Your task to perform on an android device: What's the weather going to be tomorrow? Image 0: 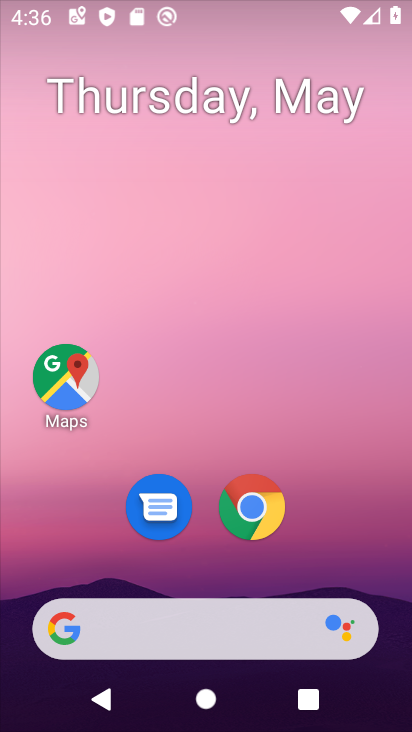
Step 0: click (224, 538)
Your task to perform on an android device: What's the weather going to be tomorrow? Image 1: 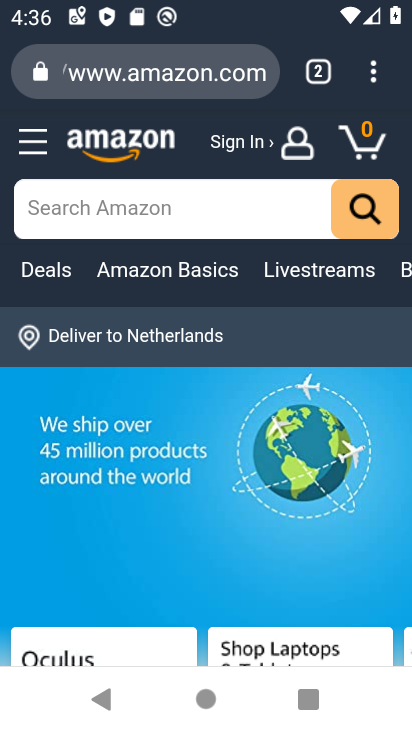
Step 1: press home button
Your task to perform on an android device: What's the weather going to be tomorrow? Image 2: 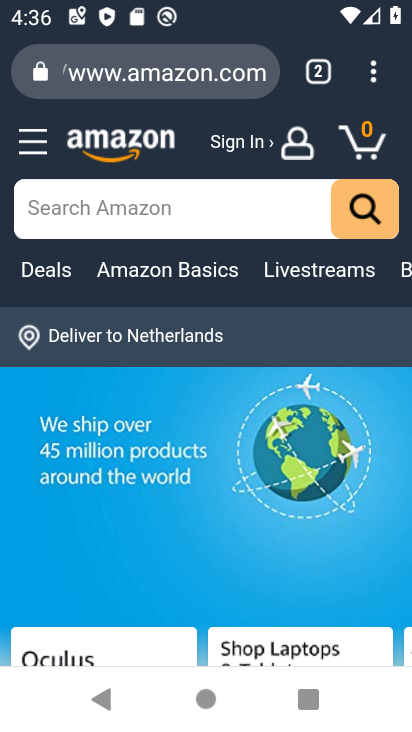
Step 2: press home button
Your task to perform on an android device: What's the weather going to be tomorrow? Image 3: 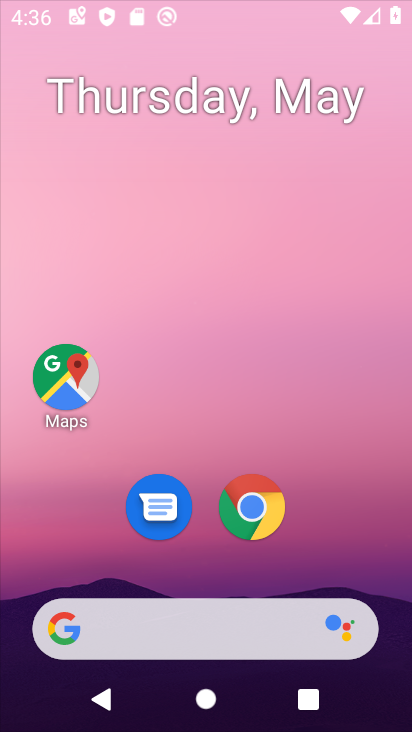
Step 3: press home button
Your task to perform on an android device: What's the weather going to be tomorrow? Image 4: 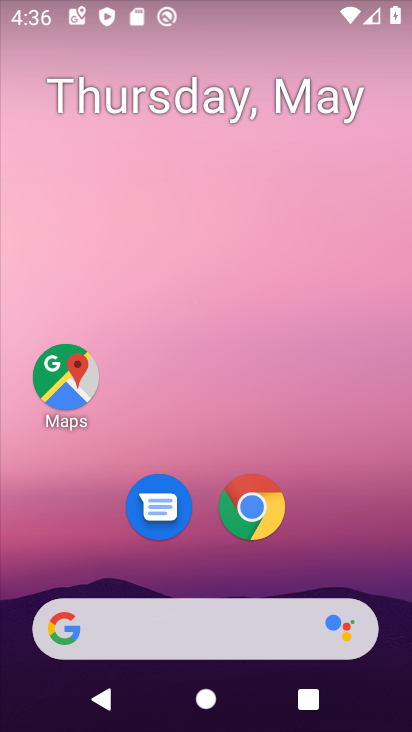
Step 4: drag from (46, 222) to (367, 397)
Your task to perform on an android device: What's the weather going to be tomorrow? Image 5: 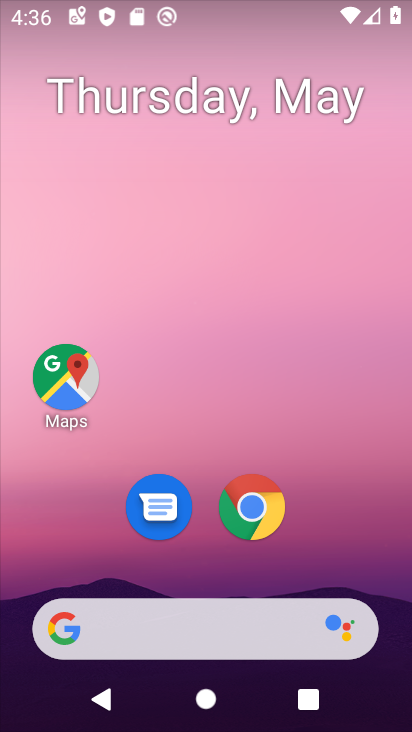
Step 5: drag from (19, 173) to (397, 358)
Your task to perform on an android device: What's the weather going to be tomorrow? Image 6: 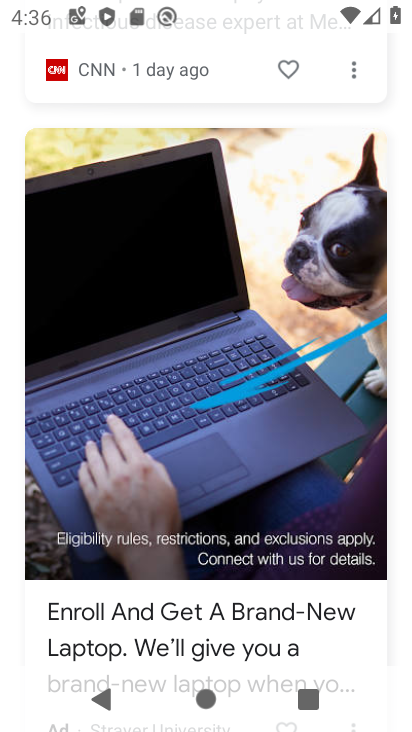
Step 6: drag from (184, 113) to (253, 548)
Your task to perform on an android device: What's the weather going to be tomorrow? Image 7: 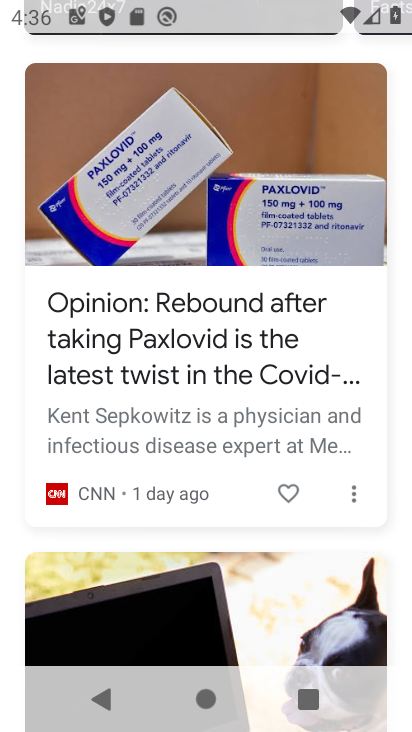
Step 7: drag from (220, 352) to (261, 580)
Your task to perform on an android device: What's the weather going to be tomorrow? Image 8: 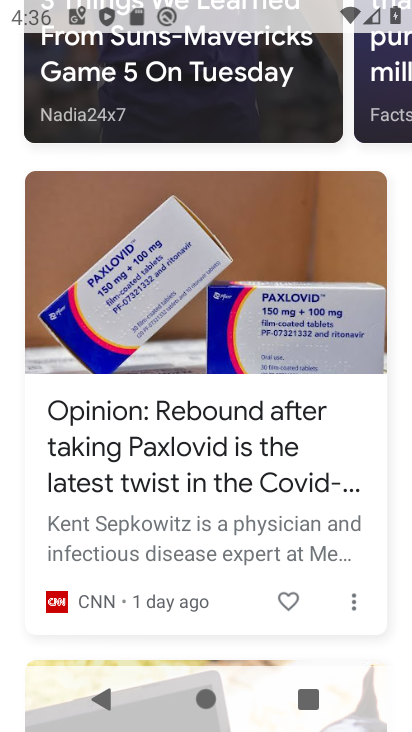
Step 8: click (266, 659)
Your task to perform on an android device: What's the weather going to be tomorrow? Image 9: 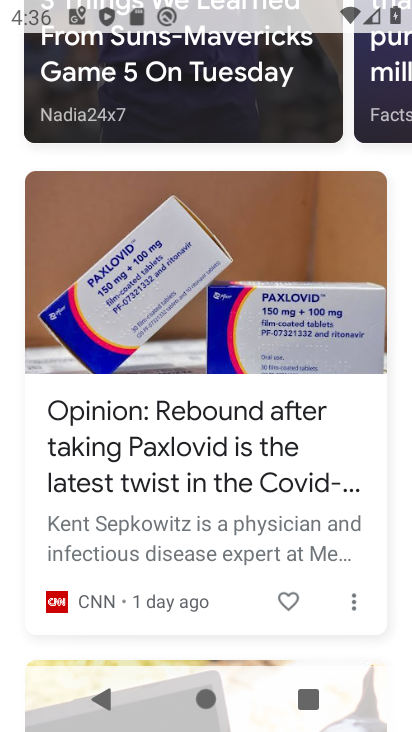
Step 9: drag from (276, 648) to (217, 487)
Your task to perform on an android device: What's the weather going to be tomorrow? Image 10: 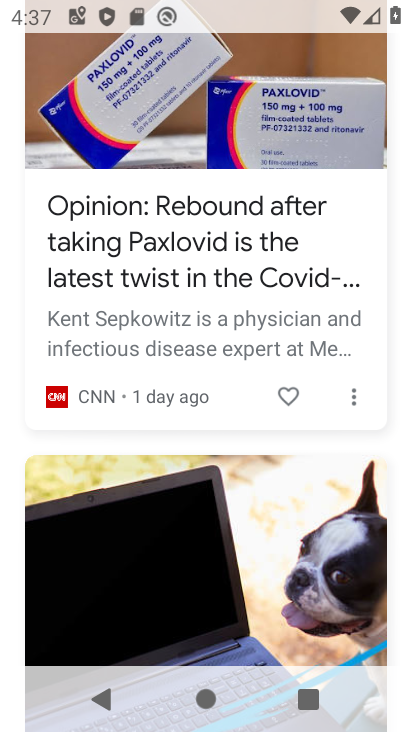
Step 10: drag from (167, 84) to (234, 567)
Your task to perform on an android device: What's the weather going to be tomorrow? Image 11: 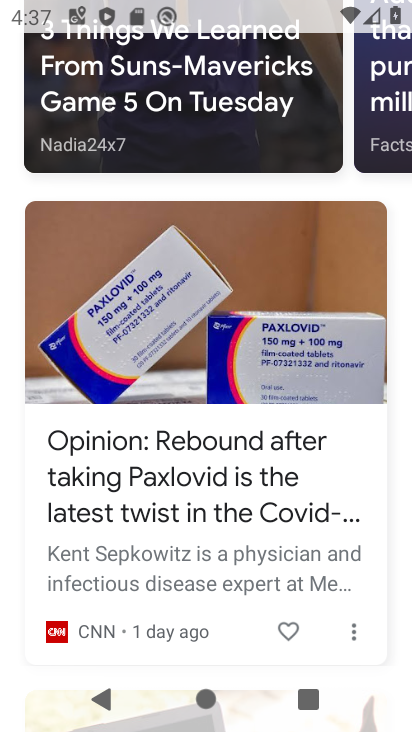
Step 11: drag from (217, 504) to (242, 610)
Your task to perform on an android device: What's the weather going to be tomorrow? Image 12: 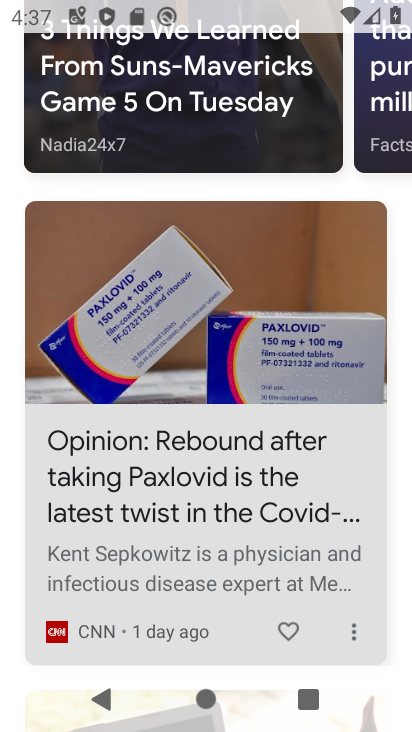
Step 12: click (191, 597)
Your task to perform on an android device: What's the weather going to be tomorrow? Image 13: 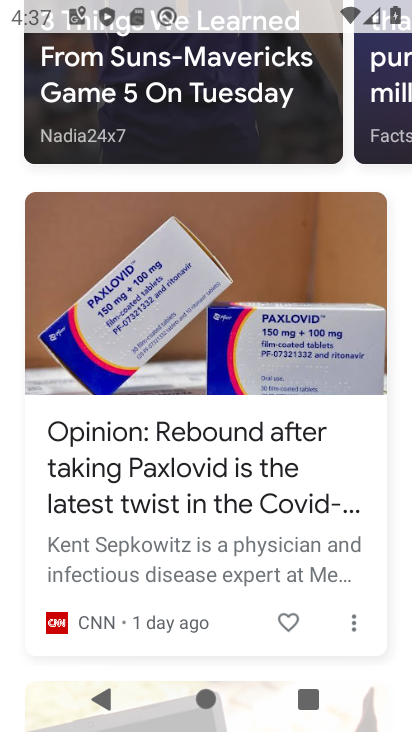
Step 13: drag from (123, 203) to (229, 270)
Your task to perform on an android device: What's the weather going to be tomorrow? Image 14: 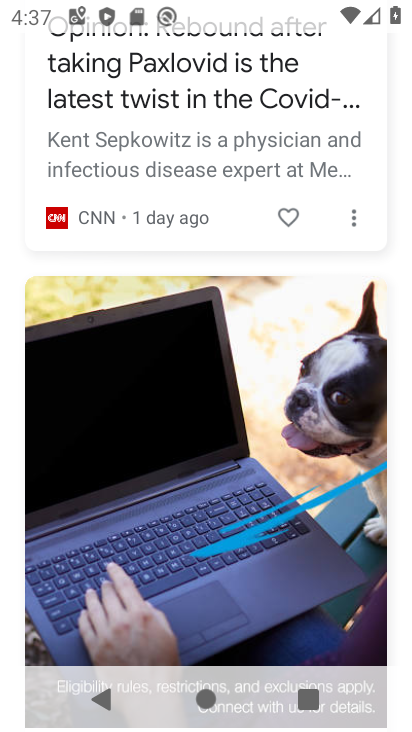
Step 14: drag from (225, 523) to (203, 700)
Your task to perform on an android device: What's the weather going to be tomorrow? Image 15: 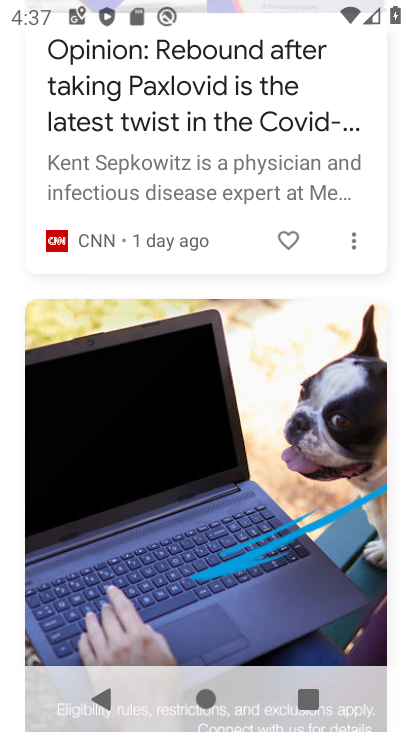
Step 15: drag from (241, 174) to (258, 622)
Your task to perform on an android device: What's the weather going to be tomorrow? Image 16: 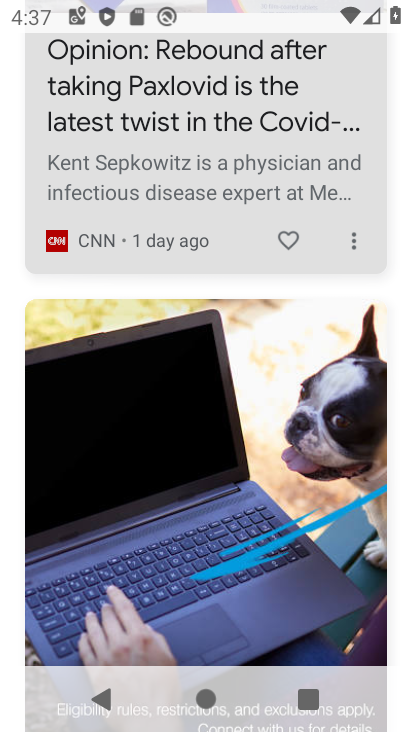
Step 16: drag from (180, 355) to (234, 633)
Your task to perform on an android device: What's the weather going to be tomorrow? Image 17: 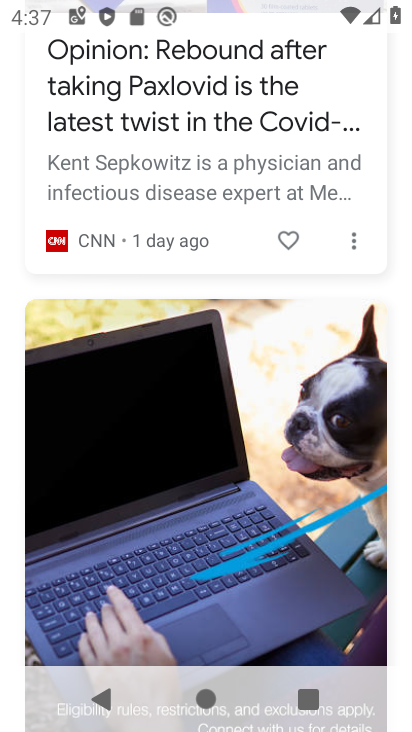
Step 17: drag from (224, 312) to (251, 362)
Your task to perform on an android device: What's the weather going to be tomorrow? Image 18: 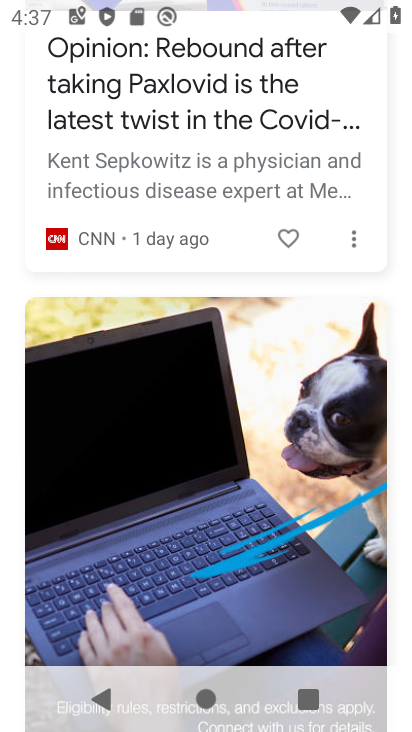
Step 18: drag from (195, 105) to (260, 534)
Your task to perform on an android device: What's the weather going to be tomorrow? Image 19: 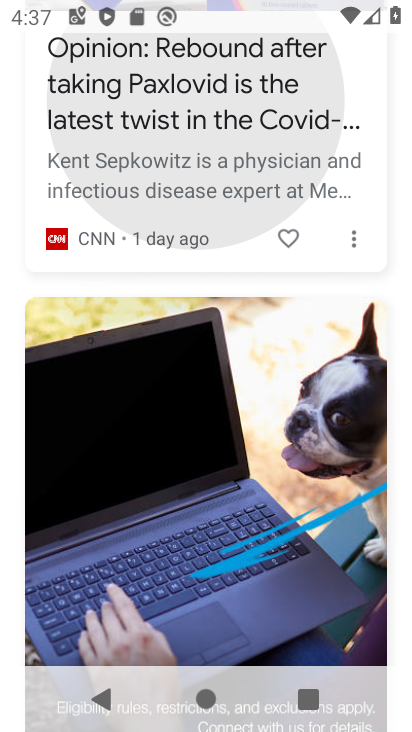
Step 19: drag from (207, 121) to (320, 605)
Your task to perform on an android device: What's the weather going to be tomorrow? Image 20: 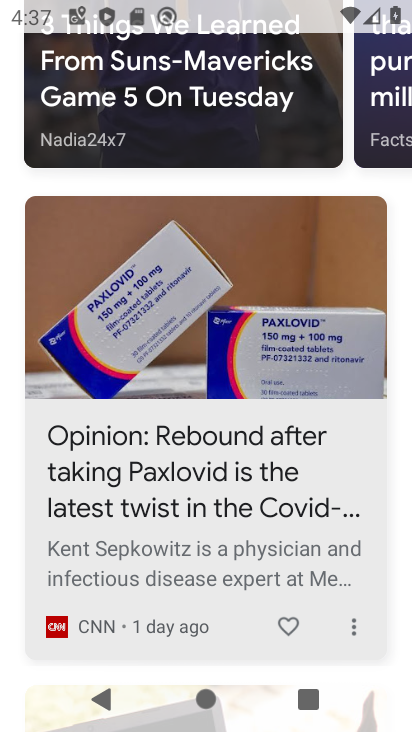
Step 20: drag from (233, 157) to (307, 545)
Your task to perform on an android device: What's the weather going to be tomorrow? Image 21: 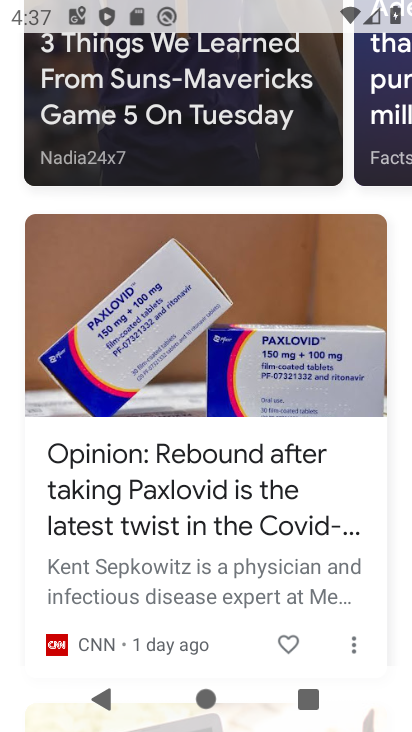
Step 21: drag from (251, 290) to (252, 583)
Your task to perform on an android device: What's the weather going to be tomorrow? Image 22: 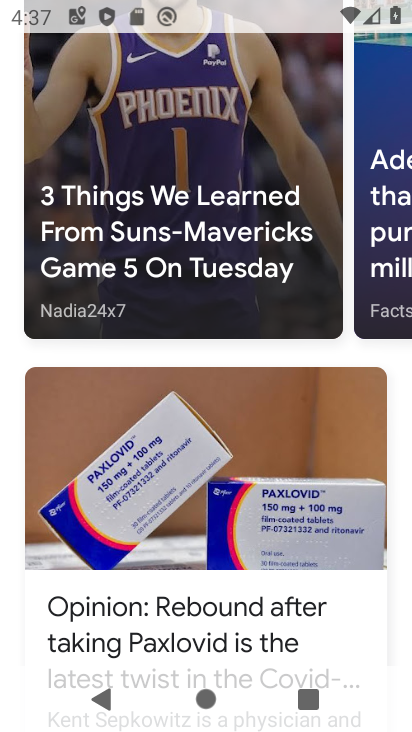
Step 22: drag from (220, 371) to (303, 642)
Your task to perform on an android device: What's the weather going to be tomorrow? Image 23: 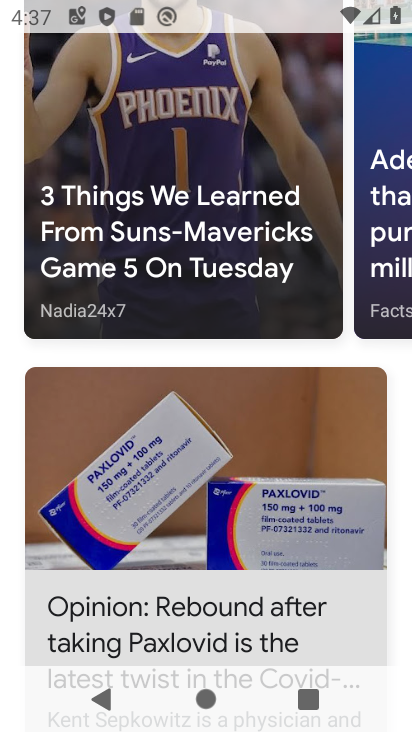
Step 23: click (240, 712)
Your task to perform on an android device: What's the weather going to be tomorrow? Image 24: 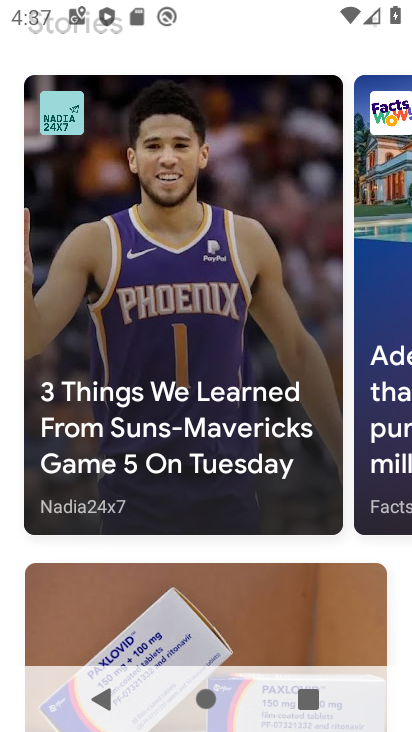
Step 24: drag from (310, 706) to (271, 689)
Your task to perform on an android device: What's the weather going to be tomorrow? Image 25: 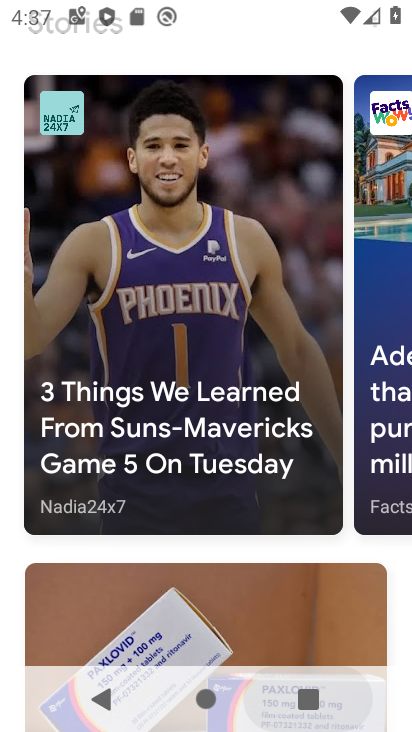
Step 25: drag from (187, 168) to (241, 566)
Your task to perform on an android device: What's the weather going to be tomorrow? Image 26: 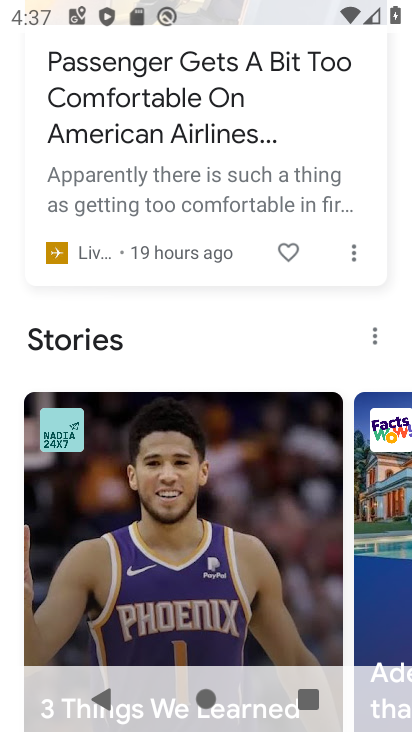
Step 26: drag from (232, 473) to (303, 605)
Your task to perform on an android device: What's the weather going to be tomorrow? Image 27: 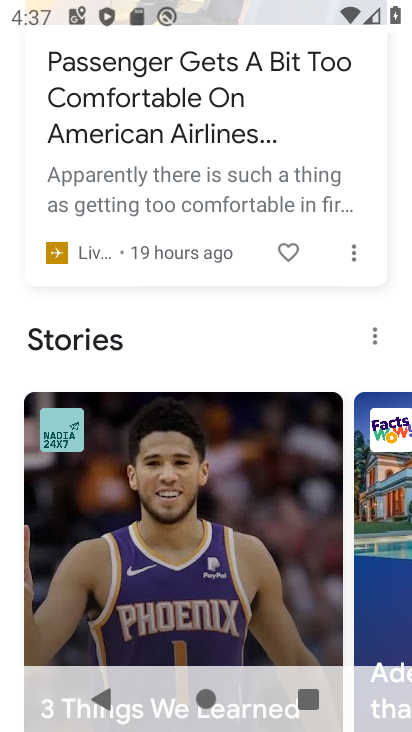
Step 27: click (297, 714)
Your task to perform on an android device: What's the weather going to be tomorrow? Image 28: 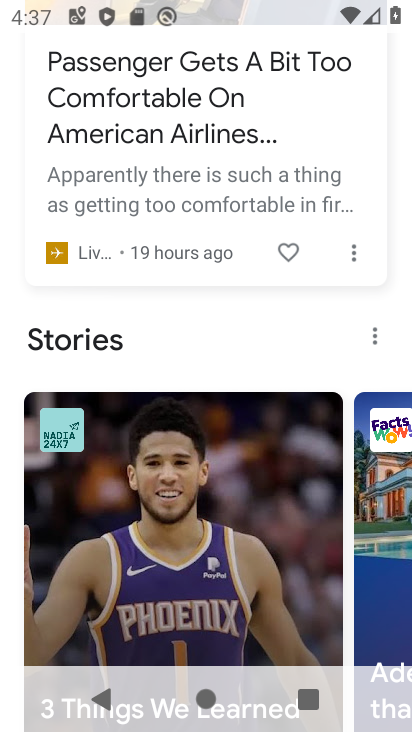
Step 28: drag from (255, 476) to (273, 549)
Your task to perform on an android device: What's the weather going to be tomorrow? Image 29: 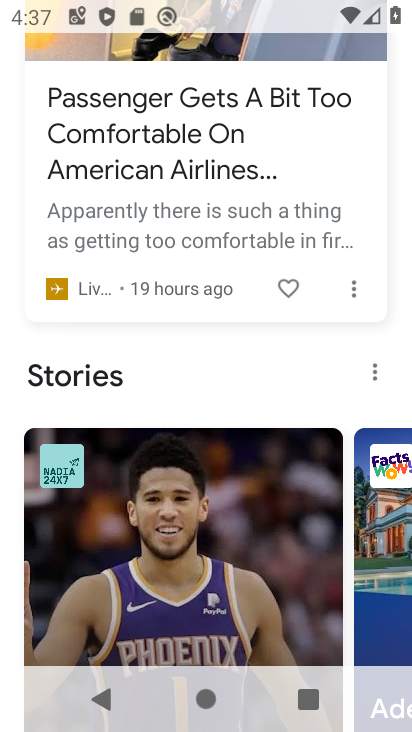
Step 29: click (298, 551)
Your task to perform on an android device: What's the weather going to be tomorrow? Image 30: 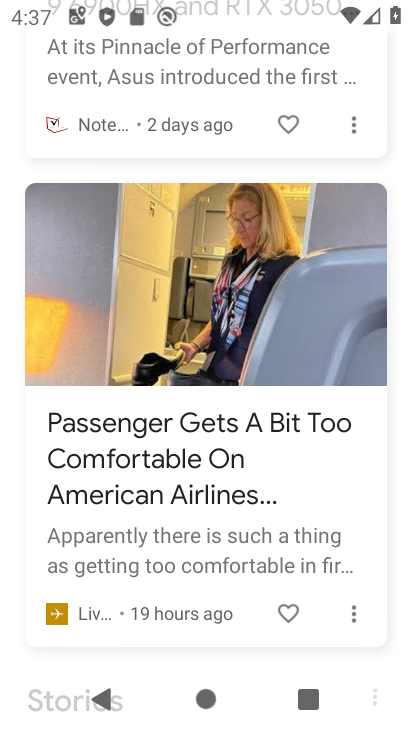
Step 30: task complete